Your task to perform on an android device: Open the phone app and click the voicemail tab. Image 0: 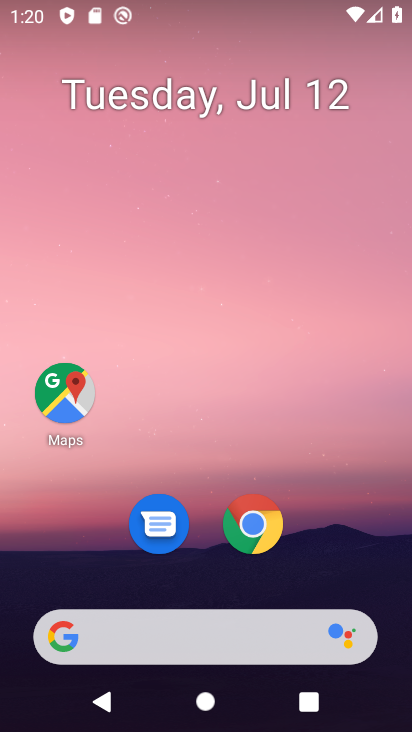
Step 0: drag from (321, 530) to (322, 30)
Your task to perform on an android device: Open the phone app and click the voicemail tab. Image 1: 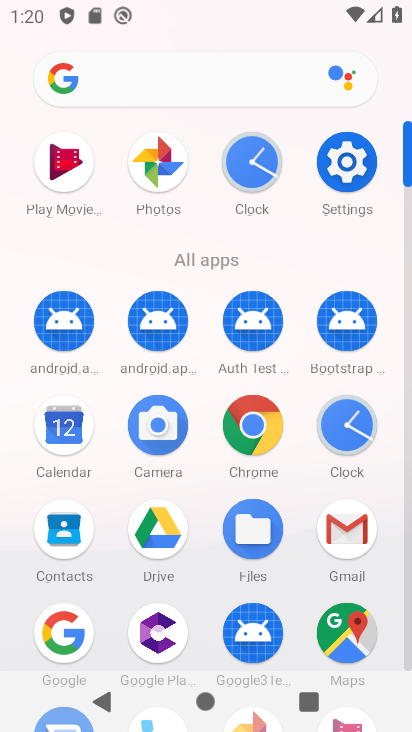
Step 1: drag from (199, 471) to (296, 122)
Your task to perform on an android device: Open the phone app and click the voicemail tab. Image 2: 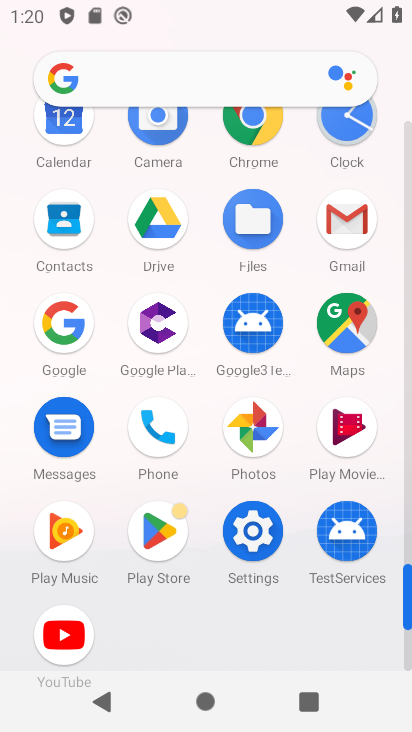
Step 2: click (163, 431)
Your task to perform on an android device: Open the phone app and click the voicemail tab. Image 3: 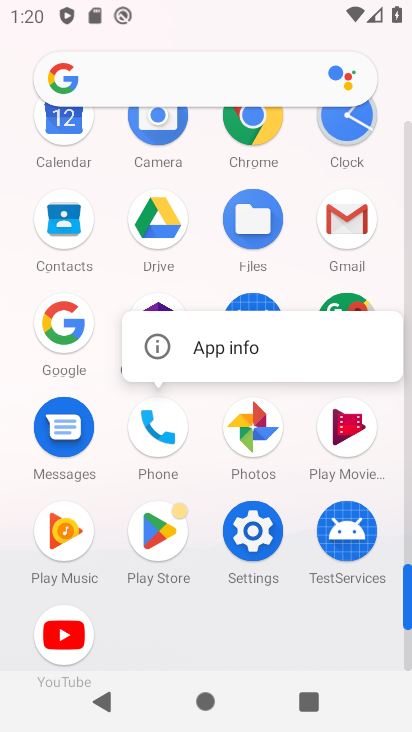
Step 3: click (163, 431)
Your task to perform on an android device: Open the phone app and click the voicemail tab. Image 4: 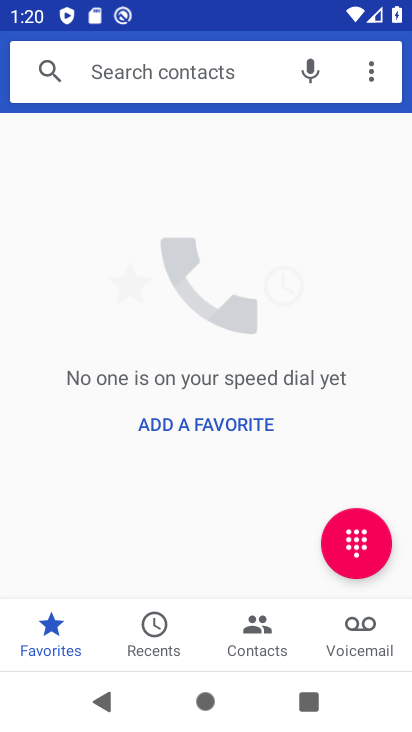
Step 4: click (360, 648)
Your task to perform on an android device: Open the phone app and click the voicemail tab. Image 5: 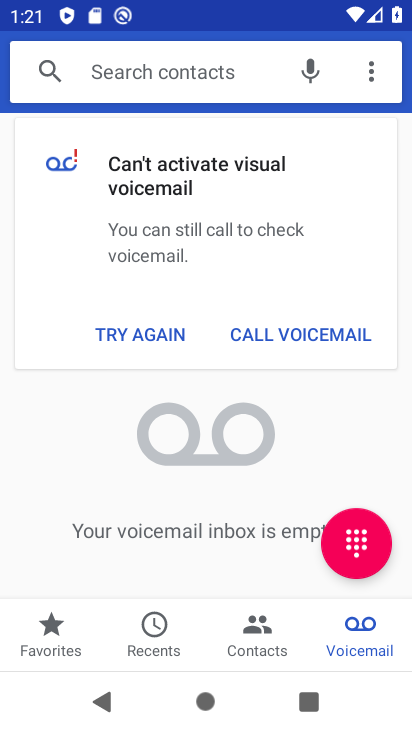
Step 5: task complete